Your task to perform on an android device: Go to wifi settings Image 0: 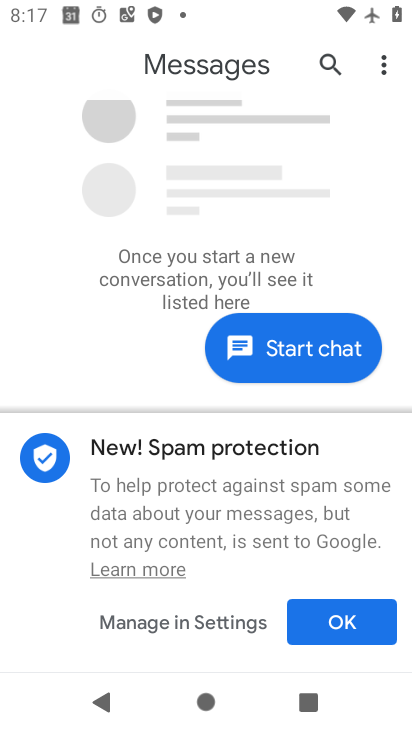
Step 0: press home button
Your task to perform on an android device: Go to wifi settings Image 1: 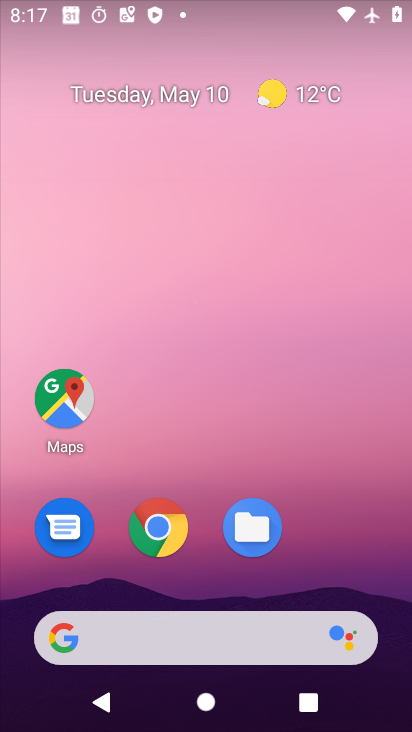
Step 1: drag from (313, 549) to (317, 152)
Your task to perform on an android device: Go to wifi settings Image 2: 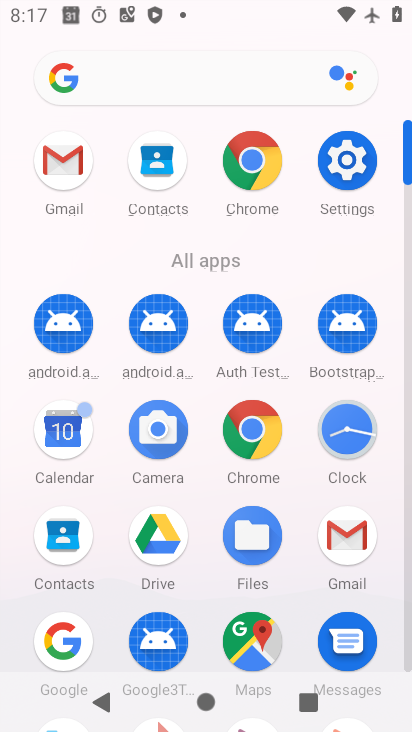
Step 2: click (359, 153)
Your task to perform on an android device: Go to wifi settings Image 3: 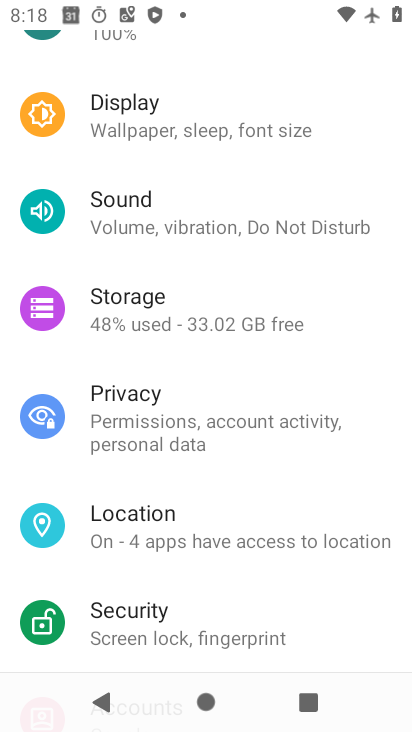
Step 3: drag from (252, 99) to (205, 421)
Your task to perform on an android device: Go to wifi settings Image 4: 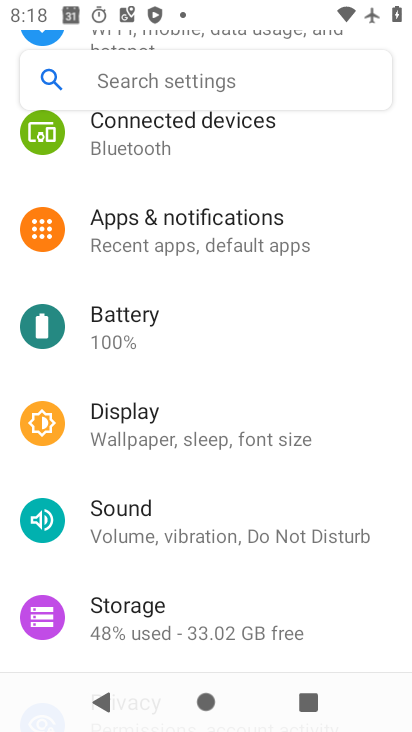
Step 4: drag from (241, 183) to (219, 464)
Your task to perform on an android device: Go to wifi settings Image 5: 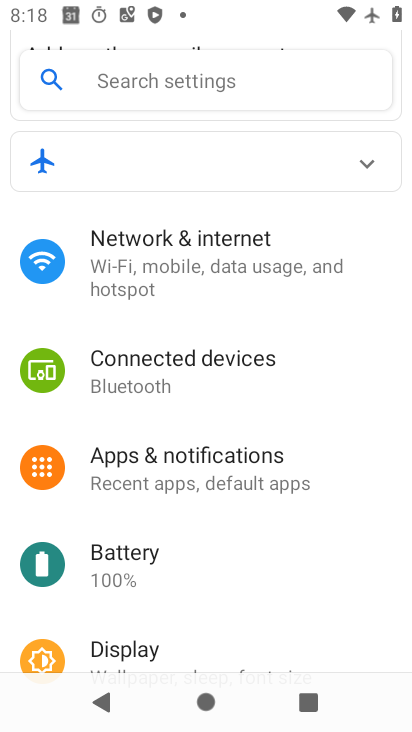
Step 5: click (250, 264)
Your task to perform on an android device: Go to wifi settings Image 6: 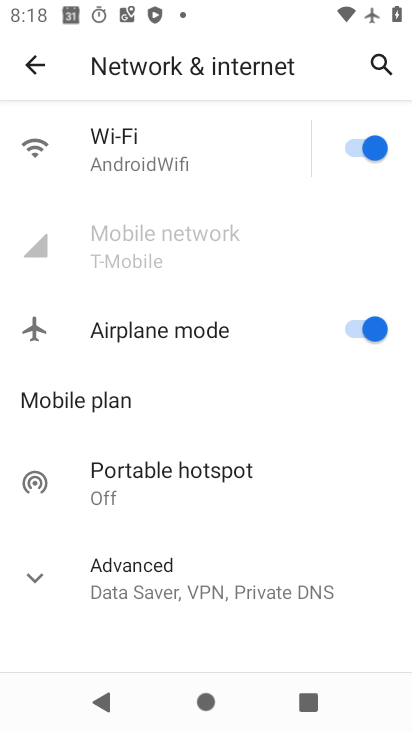
Step 6: click (237, 137)
Your task to perform on an android device: Go to wifi settings Image 7: 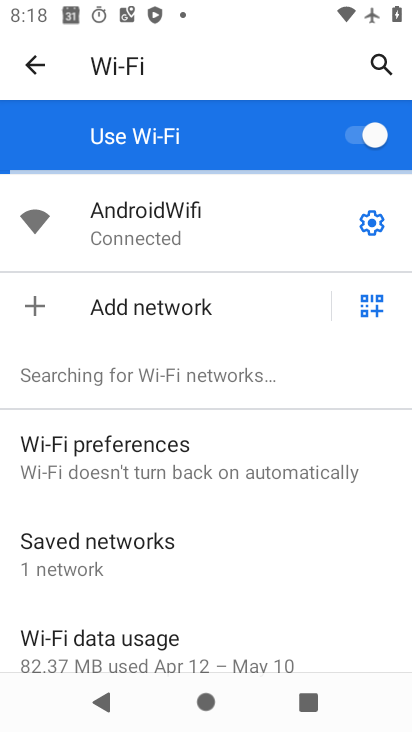
Step 7: task complete